Your task to perform on an android device: See recent photos Image 0: 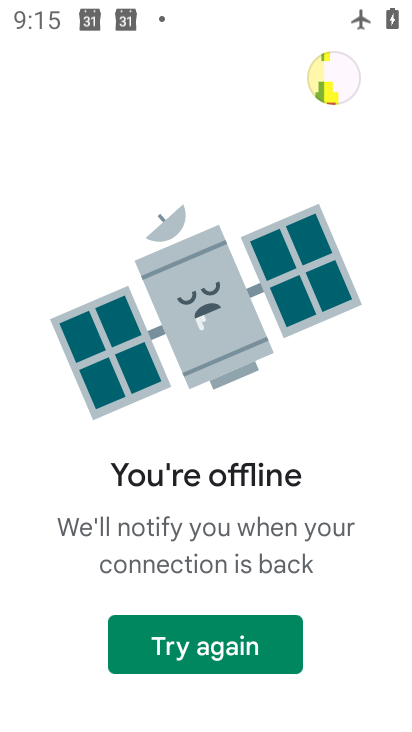
Step 0: press home button
Your task to perform on an android device: See recent photos Image 1: 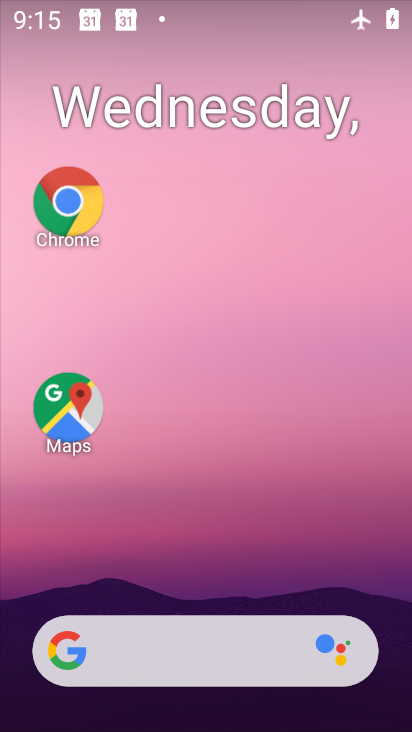
Step 1: drag from (214, 601) to (244, 11)
Your task to perform on an android device: See recent photos Image 2: 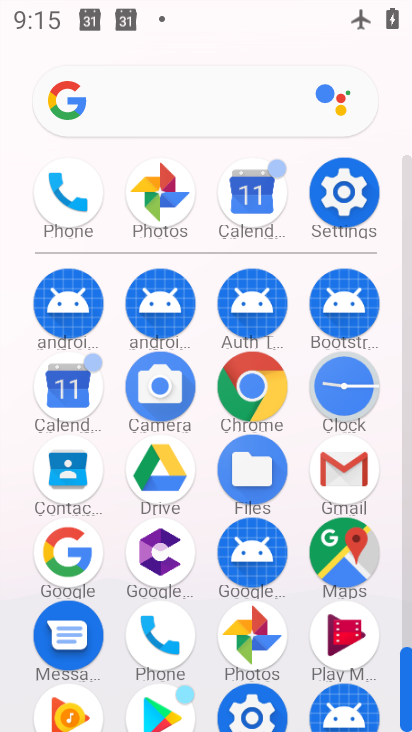
Step 2: click (165, 205)
Your task to perform on an android device: See recent photos Image 3: 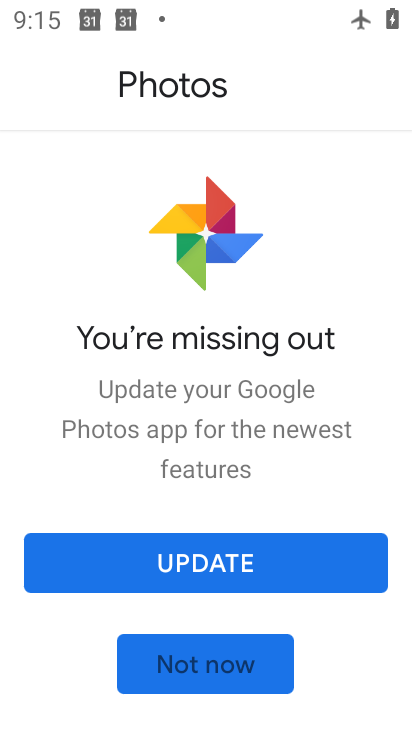
Step 3: click (215, 649)
Your task to perform on an android device: See recent photos Image 4: 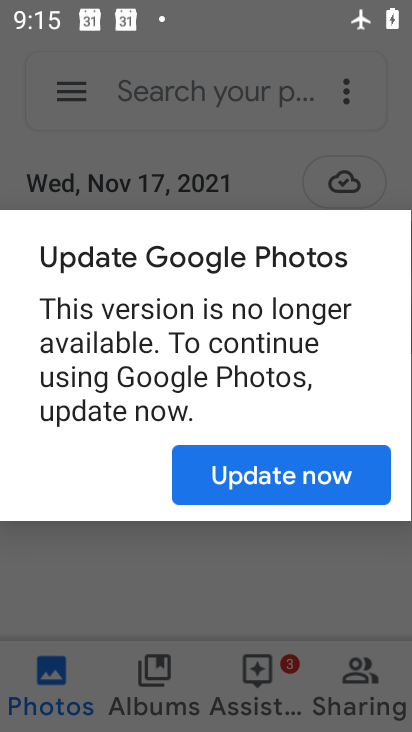
Step 4: click (276, 487)
Your task to perform on an android device: See recent photos Image 5: 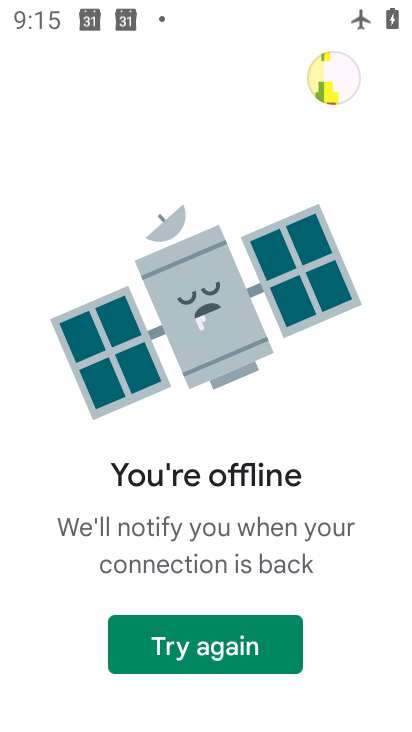
Step 5: click (208, 612)
Your task to perform on an android device: See recent photos Image 6: 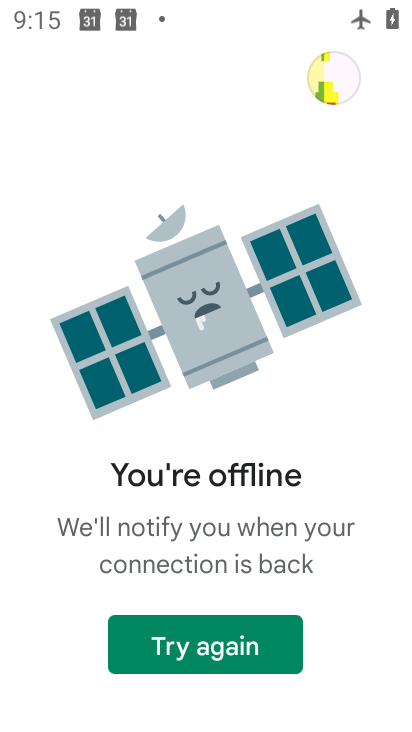
Step 6: task complete